Your task to perform on an android device: open app "eBay: The shopping marketplace" Image 0: 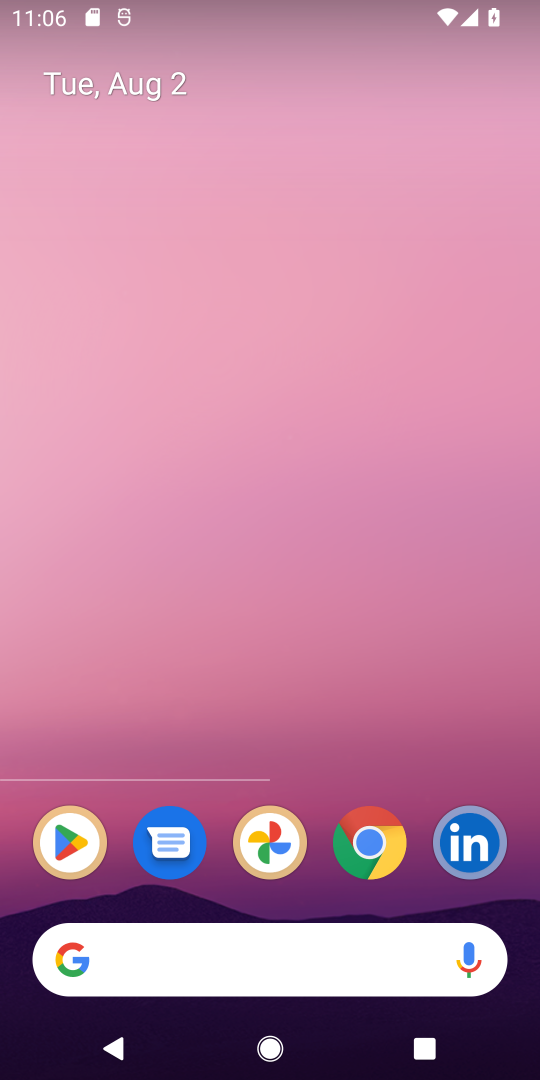
Step 0: press home button
Your task to perform on an android device: open app "eBay: The shopping marketplace" Image 1: 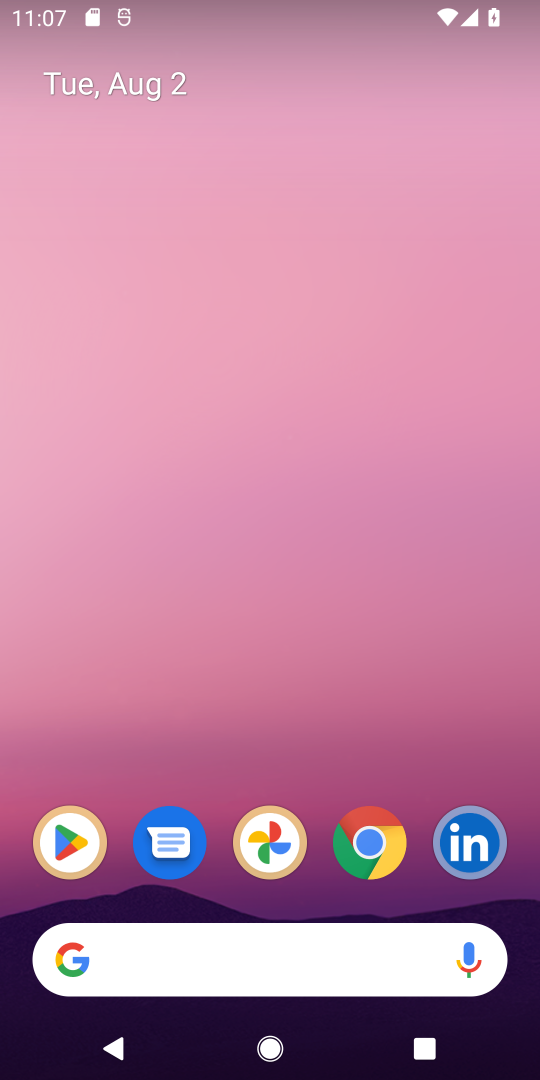
Step 1: click (63, 862)
Your task to perform on an android device: open app "eBay: The shopping marketplace" Image 2: 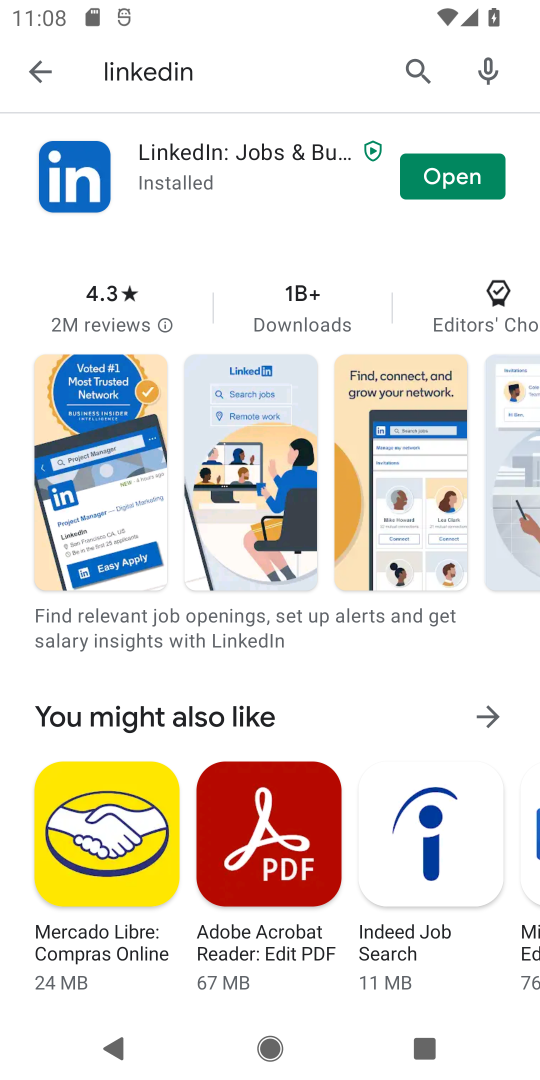
Step 2: click (420, 78)
Your task to perform on an android device: open app "eBay: The shopping marketplace" Image 3: 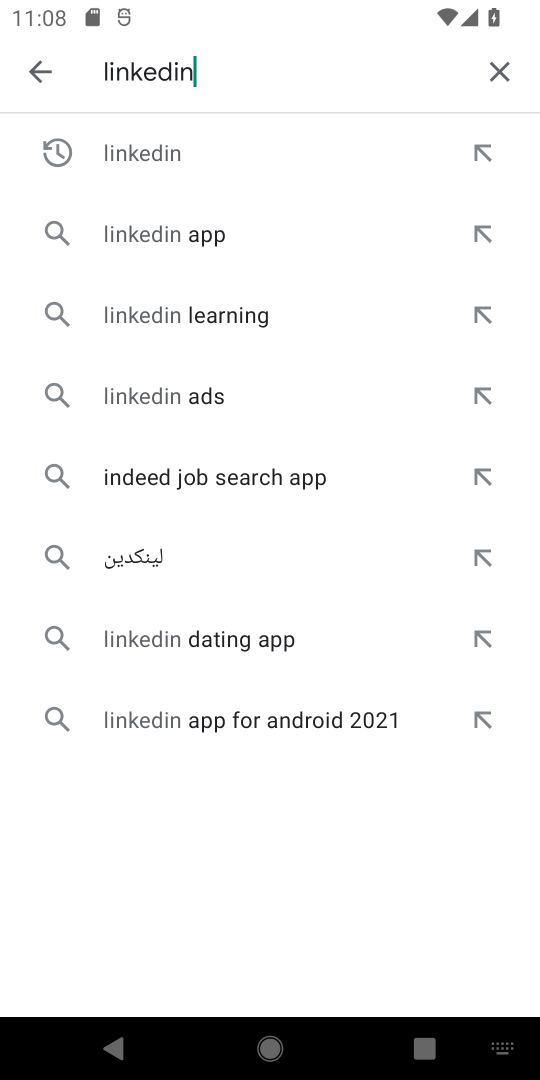
Step 3: click (496, 73)
Your task to perform on an android device: open app "eBay: The shopping marketplace" Image 4: 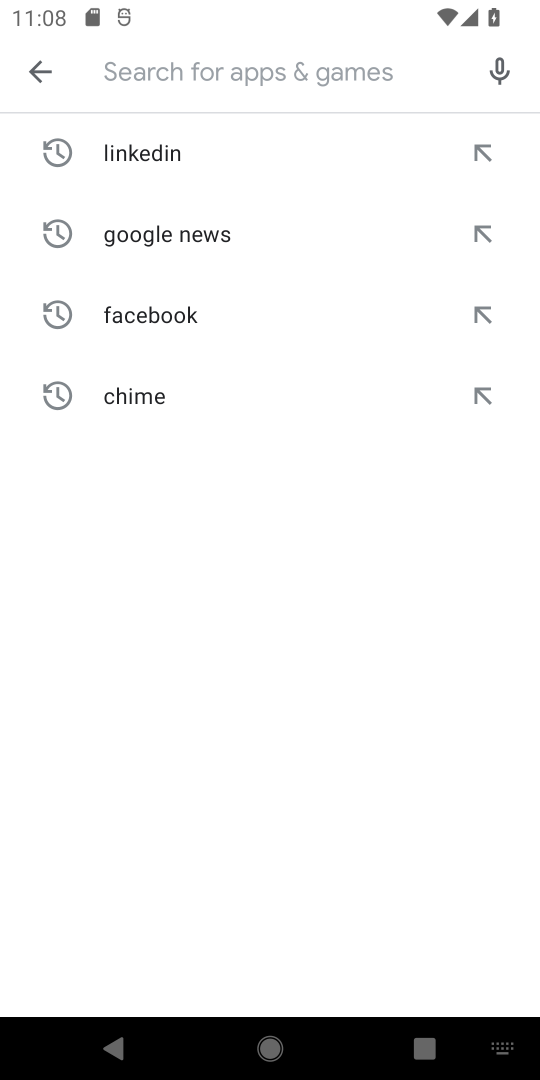
Step 4: type "eBay"
Your task to perform on an android device: open app "eBay: The shopping marketplace" Image 5: 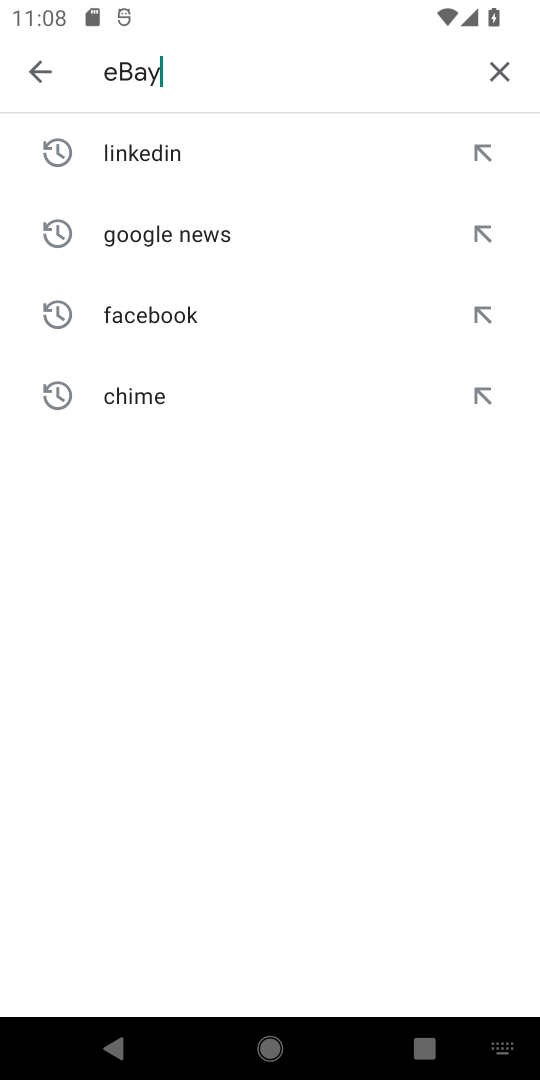
Step 5: type ""
Your task to perform on an android device: open app "eBay: The shopping marketplace" Image 6: 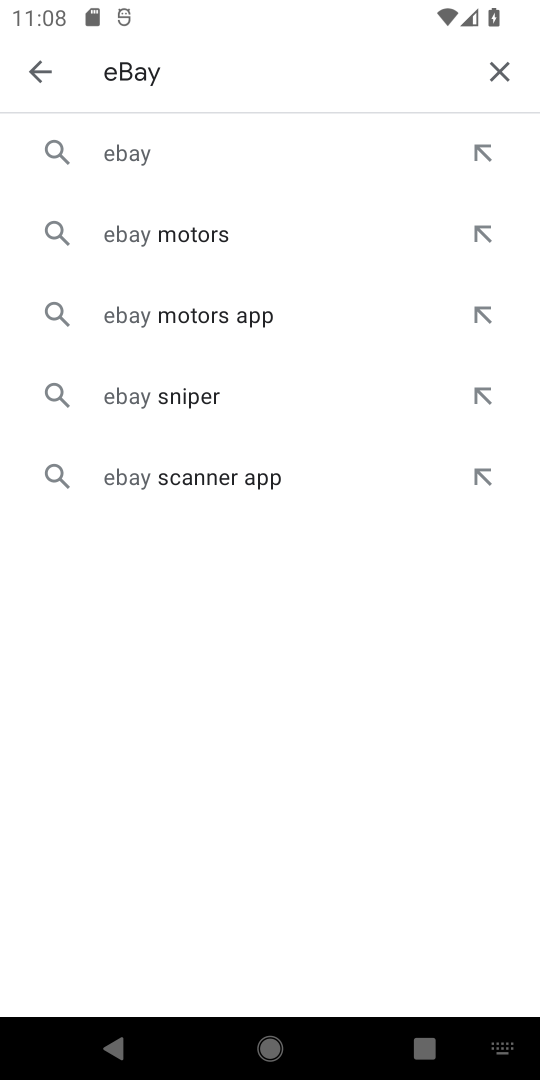
Step 6: click (124, 163)
Your task to perform on an android device: open app "eBay: The shopping marketplace" Image 7: 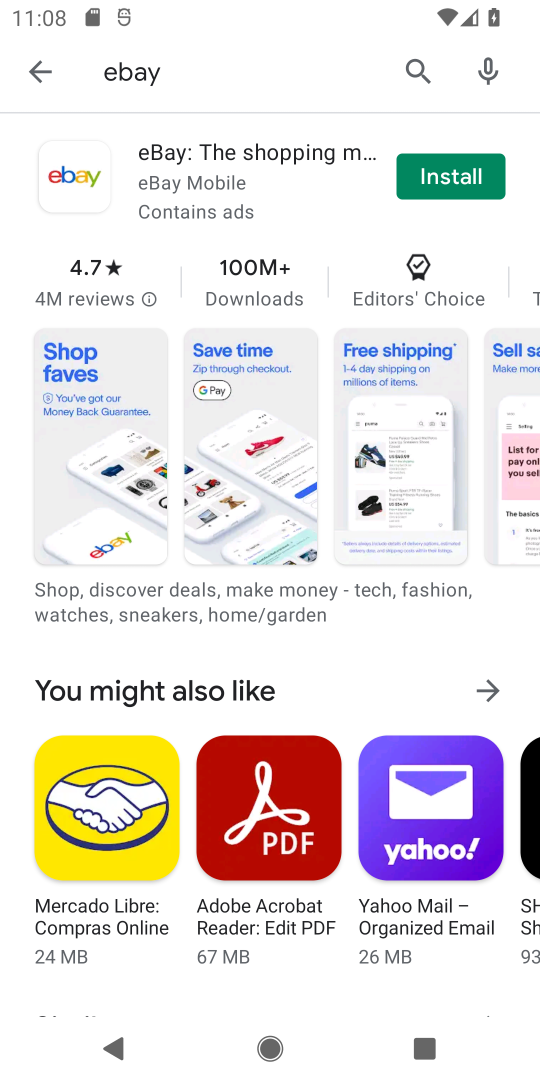
Step 7: click (476, 191)
Your task to perform on an android device: open app "eBay: The shopping marketplace" Image 8: 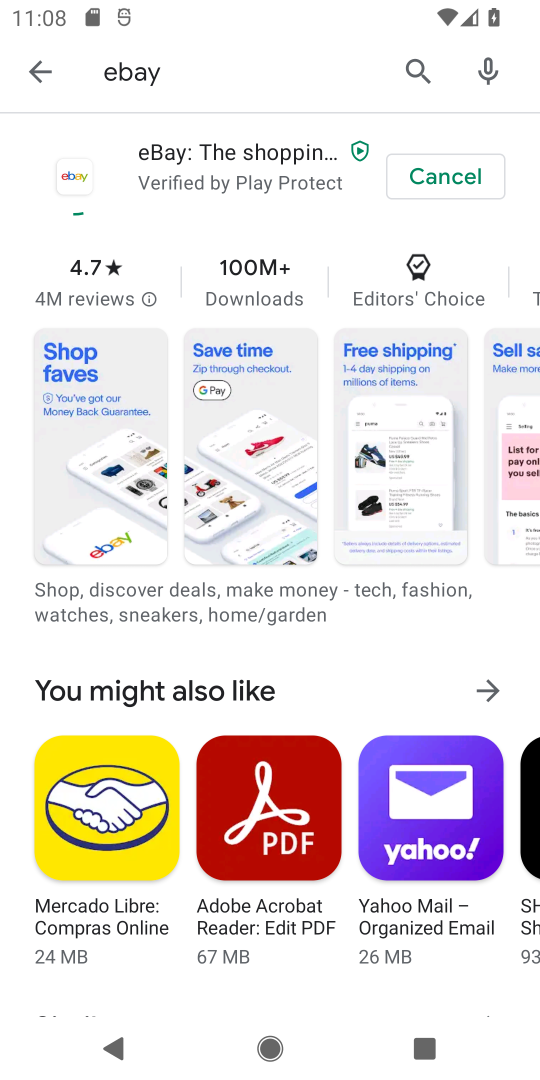
Step 8: click (476, 191)
Your task to perform on an android device: open app "eBay: The shopping marketplace" Image 9: 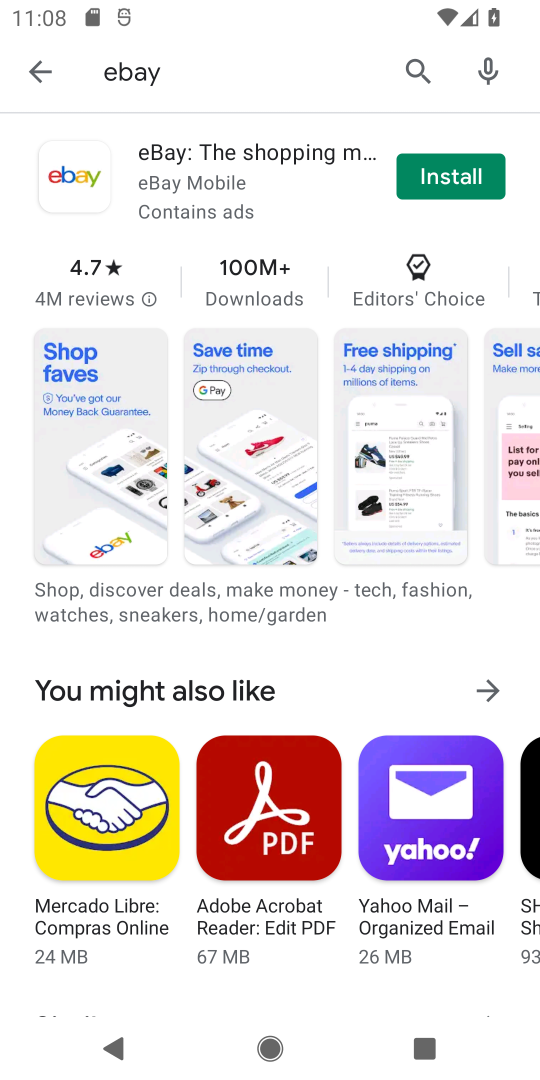
Step 9: task complete